Your task to perform on an android device: see creations saved in the google photos Image 0: 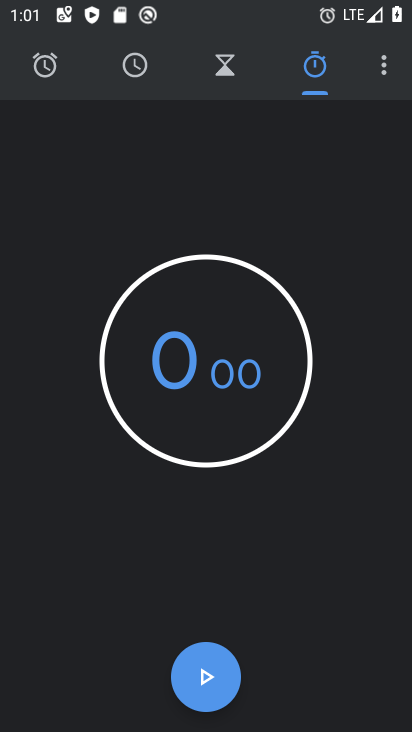
Step 0: press home button
Your task to perform on an android device: see creations saved in the google photos Image 1: 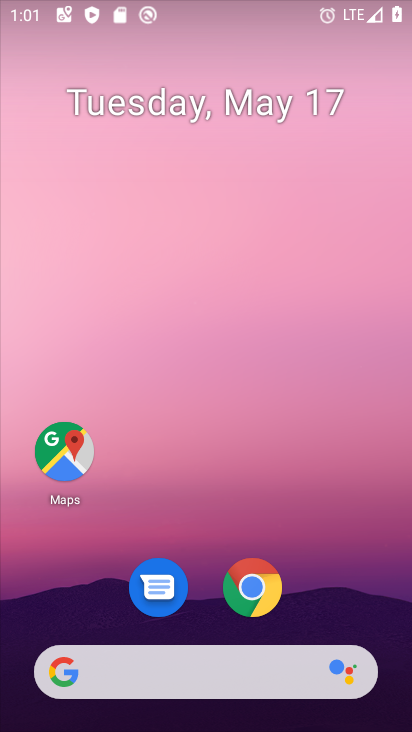
Step 1: drag from (377, 612) to (316, 2)
Your task to perform on an android device: see creations saved in the google photos Image 2: 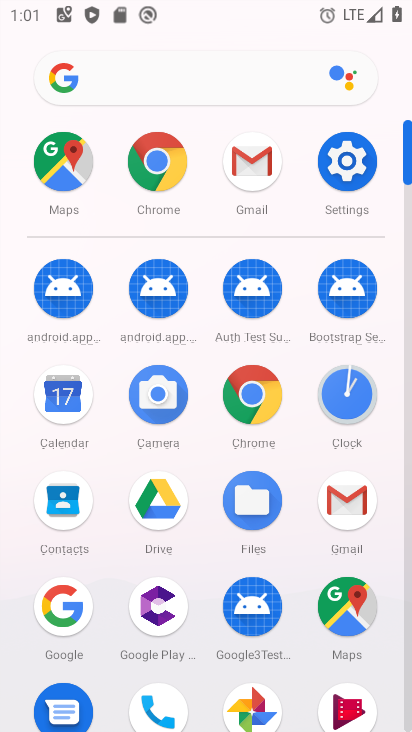
Step 2: click (260, 692)
Your task to perform on an android device: see creations saved in the google photos Image 3: 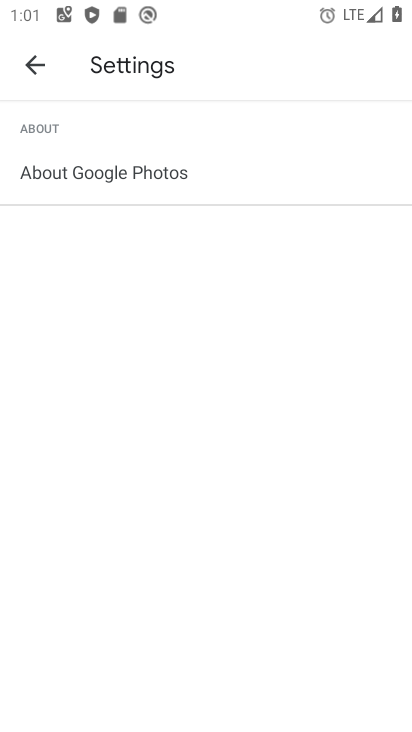
Step 3: press back button
Your task to perform on an android device: see creations saved in the google photos Image 4: 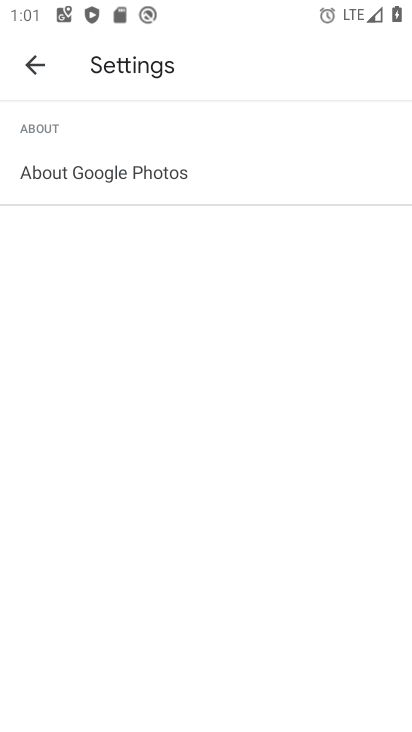
Step 4: press back button
Your task to perform on an android device: see creations saved in the google photos Image 5: 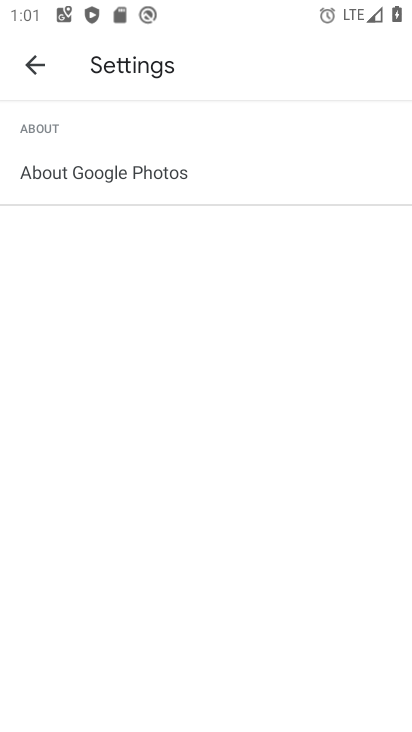
Step 5: press back button
Your task to perform on an android device: see creations saved in the google photos Image 6: 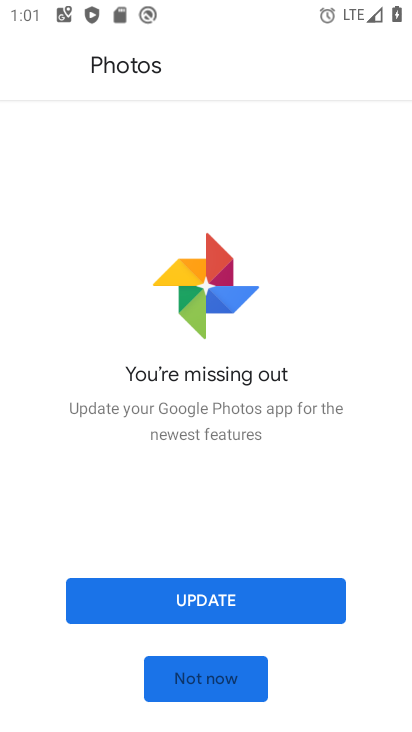
Step 6: click (240, 613)
Your task to perform on an android device: see creations saved in the google photos Image 7: 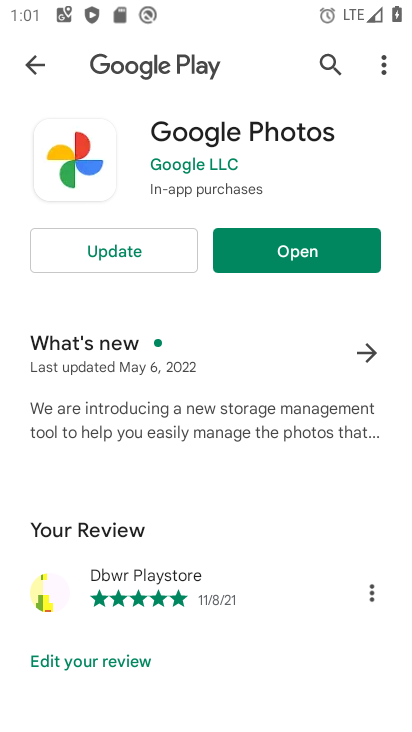
Step 7: click (106, 263)
Your task to perform on an android device: see creations saved in the google photos Image 8: 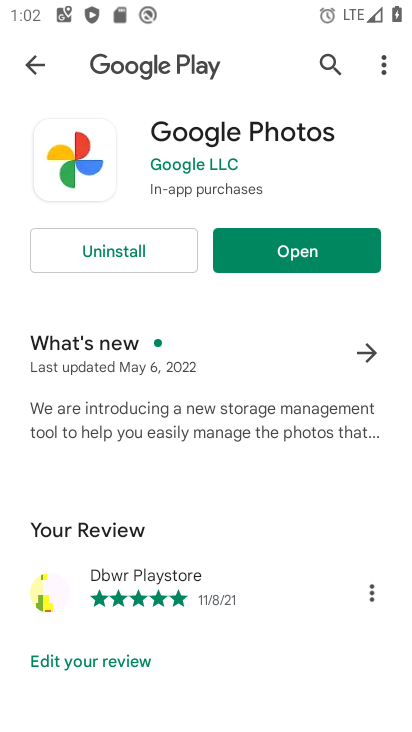
Step 8: click (265, 256)
Your task to perform on an android device: see creations saved in the google photos Image 9: 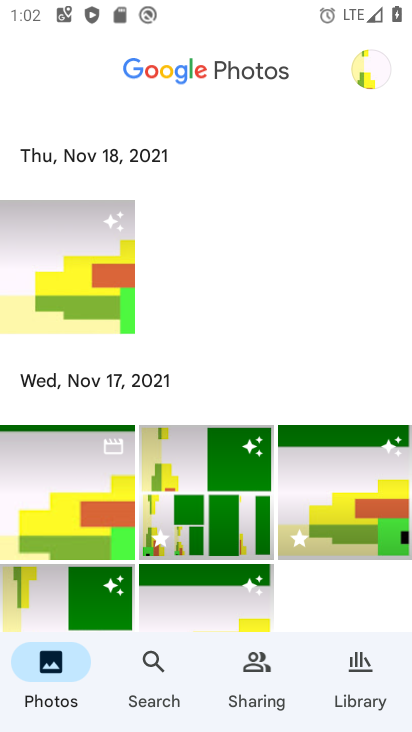
Step 9: click (157, 672)
Your task to perform on an android device: see creations saved in the google photos Image 10: 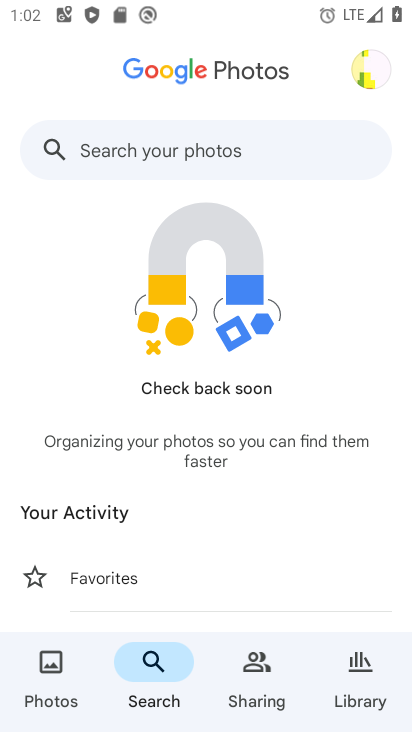
Step 10: drag from (129, 582) to (181, 72)
Your task to perform on an android device: see creations saved in the google photos Image 11: 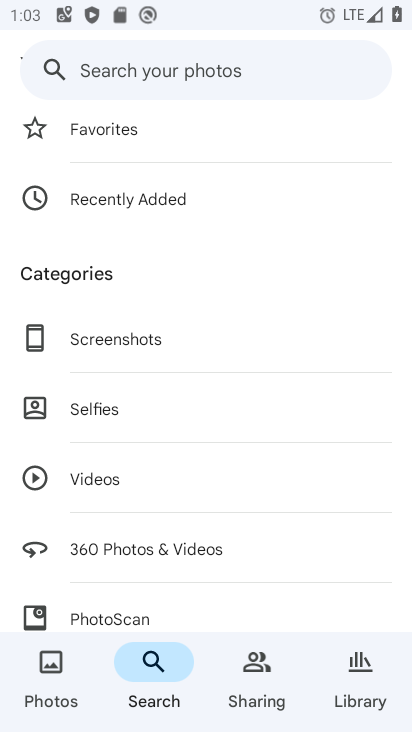
Step 11: drag from (110, 559) to (162, 190)
Your task to perform on an android device: see creations saved in the google photos Image 12: 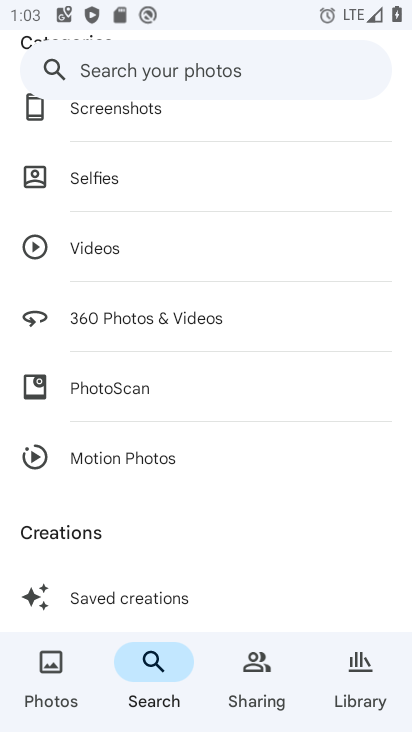
Step 12: click (79, 594)
Your task to perform on an android device: see creations saved in the google photos Image 13: 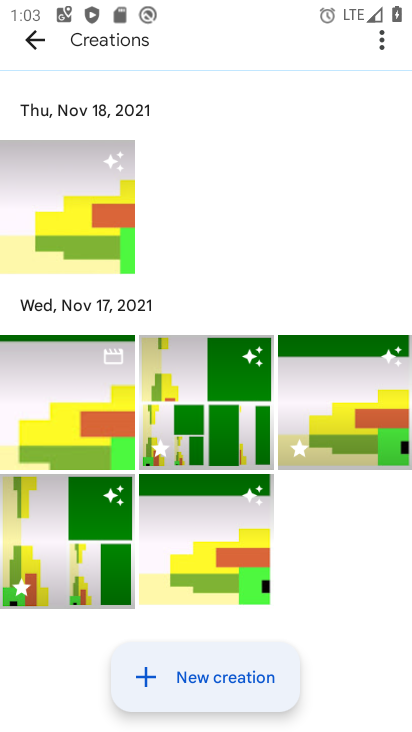
Step 13: task complete